Your task to perform on an android device: turn on wifi Image 0: 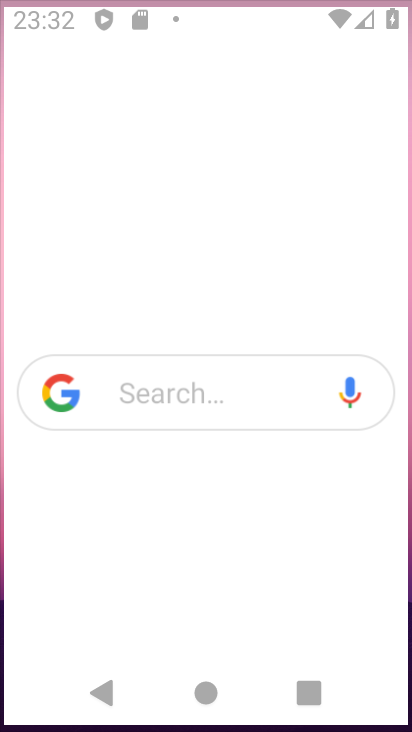
Step 0: drag from (324, 531) to (267, 66)
Your task to perform on an android device: turn on wifi Image 1: 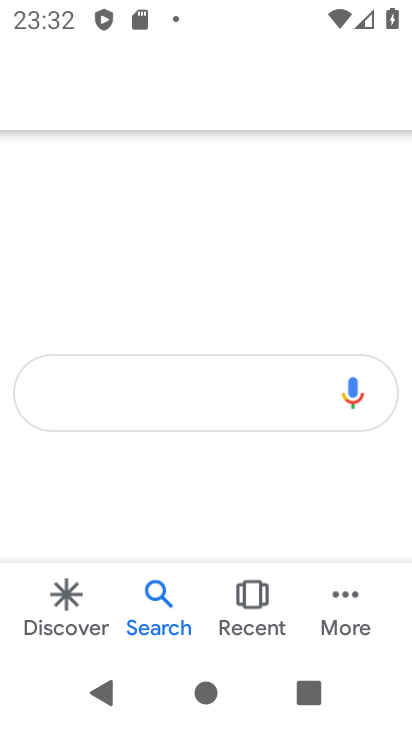
Step 1: press home button
Your task to perform on an android device: turn on wifi Image 2: 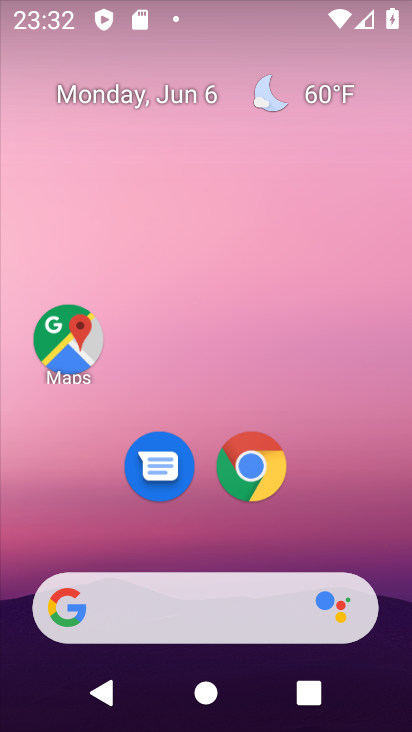
Step 2: drag from (320, 517) to (322, 77)
Your task to perform on an android device: turn on wifi Image 3: 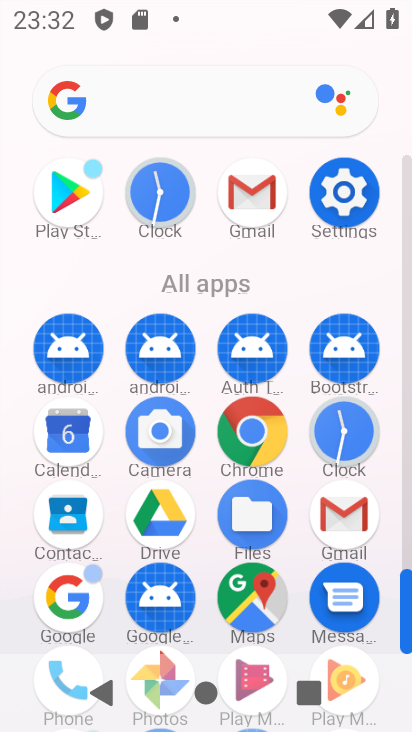
Step 3: click (346, 192)
Your task to perform on an android device: turn on wifi Image 4: 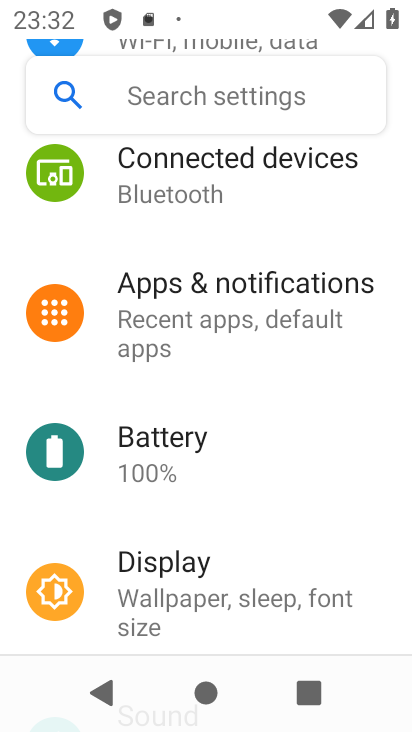
Step 4: drag from (226, 176) to (253, 718)
Your task to perform on an android device: turn on wifi Image 5: 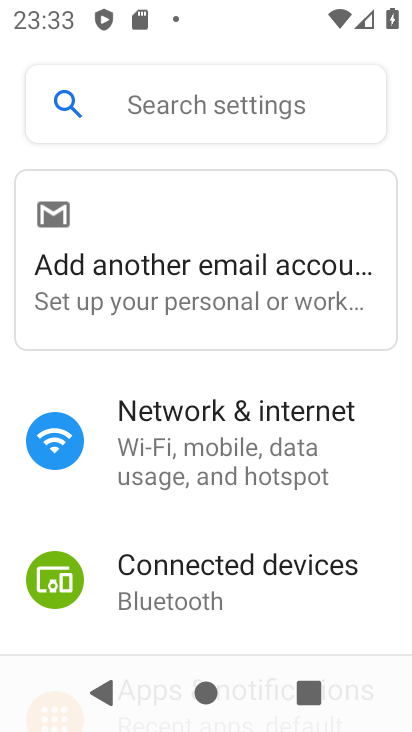
Step 5: click (160, 446)
Your task to perform on an android device: turn on wifi Image 6: 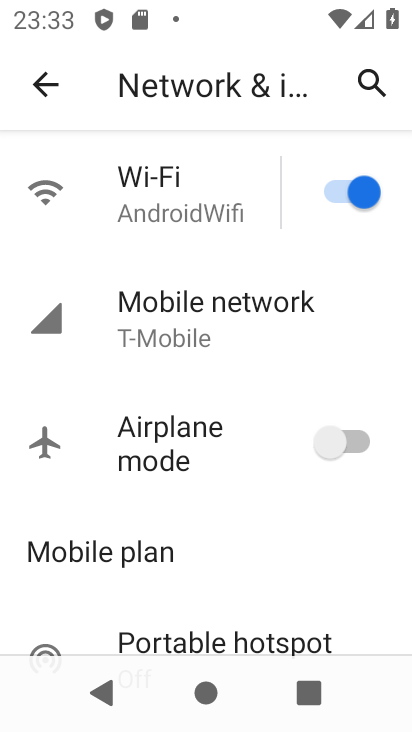
Step 6: task complete